Your task to perform on an android device: open the mobile data screen to see how much data has been used Image 0: 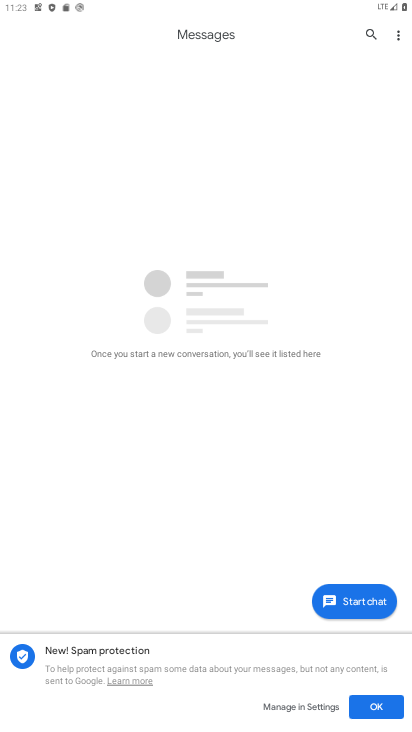
Step 0: press home button
Your task to perform on an android device: open the mobile data screen to see how much data has been used Image 1: 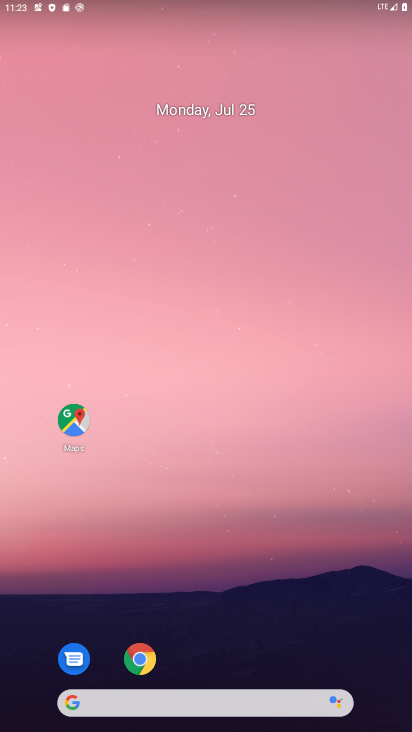
Step 1: drag from (210, 638) to (194, 186)
Your task to perform on an android device: open the mobile data screen to see how much data has been used Image 2: 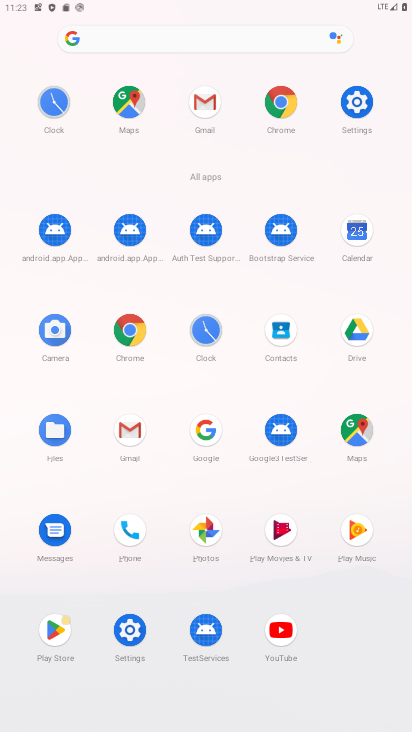
Step 2: click (359, 97)
Your task to perform on an android device: open the mobile data screen to see how much data has been used Image 3: 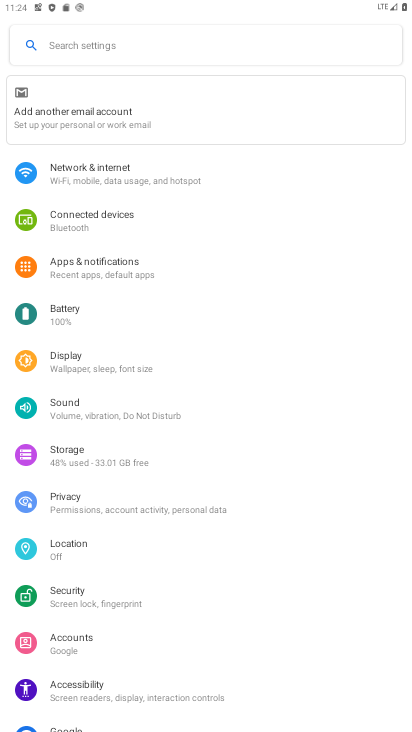
Step 3: click (135, 168)
Your task to perform on an android device: open the mobile data screen to see how much data has been used Image 4: 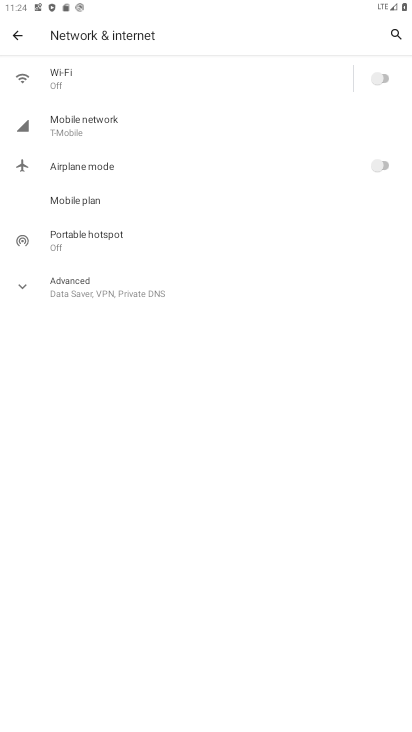
Step 4: click (204, 124)
Your task to perform on an android device: open the mobile data screen to see how much data has been used Image 5: 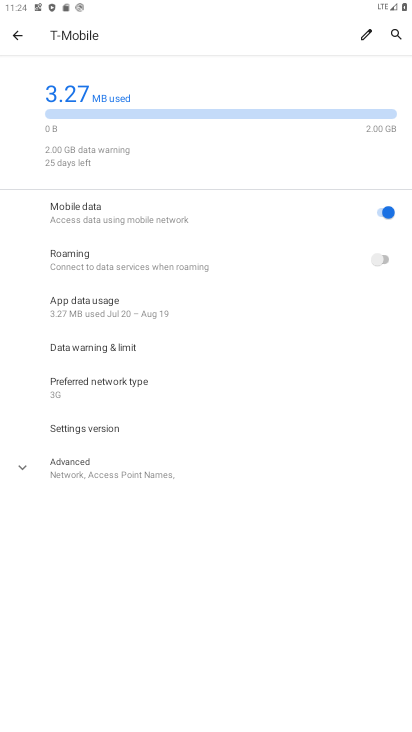
Step 5: task complete